Your task to perform on an android device: turn smart compose on in the gmail app Image 0: 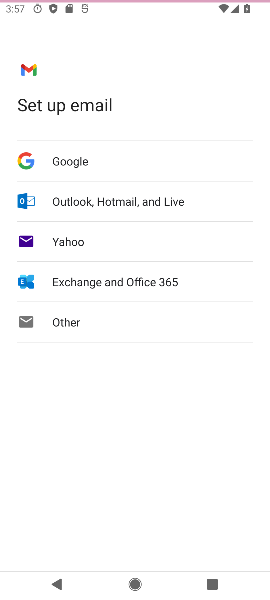
Step 0: click (14, 31)
Your task to perform on an android device: turn smart compose on in the gmail app Image 1: 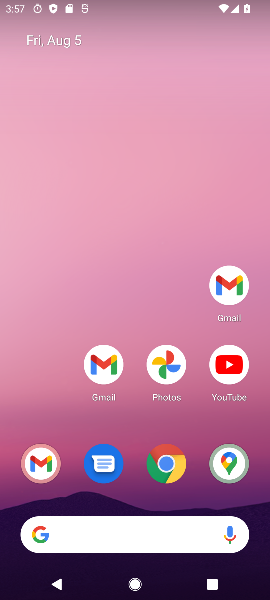
Step 1: drag from (131, 507) to (108, 164)
Your task to perform on an android device: turn smart compose on in the gmail app Image 2: 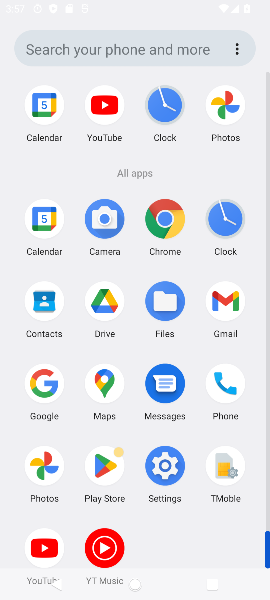
Step 2: drag from (177, 486) to (161, 315)
Your task to perform on an android device: turn smart compose on in the gmail app Image 3: 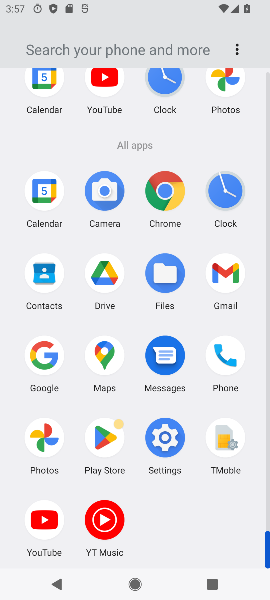
Step 3: click (233, 271)
Your task to perform on an android device: turn smart compose on in the gmail app Image 4: 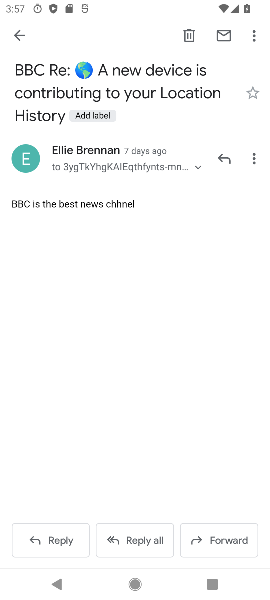
Step 4: click (15, 31)
Your task to perform on an android device: turn smart compose on in the gmail app Image 5: 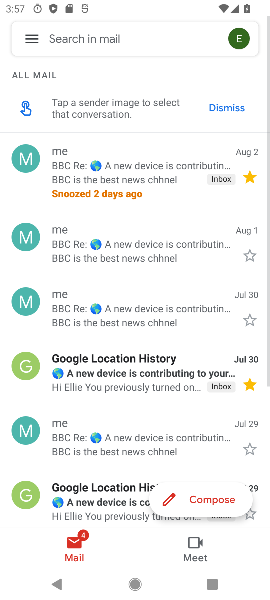
Step 5: drag from (30, 40) to (87, 420)
Your task to perform on an android device: turn smart compose on in the gmail app Image 6: 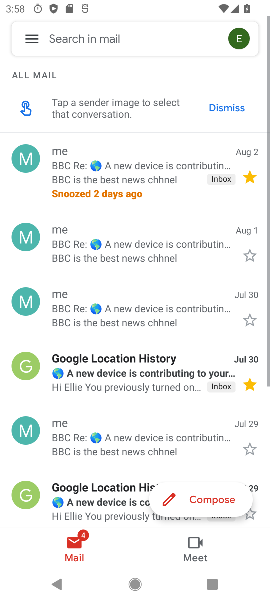
Step 6: drag from (28, 32) to (35, 192)
Your task to perform on an android device: turn smart compose on in the gmail app Image 7: 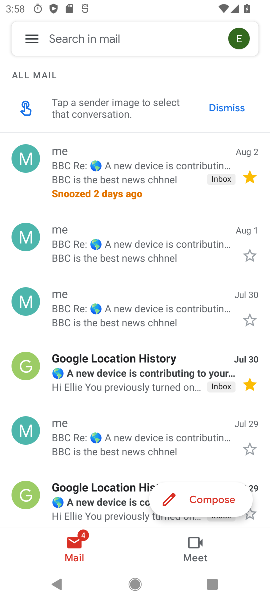
Step 7: drag from (29, 44) to (78, 374)
Your task to perform on an android device: turn smart compose on in the gmail app Image 8: 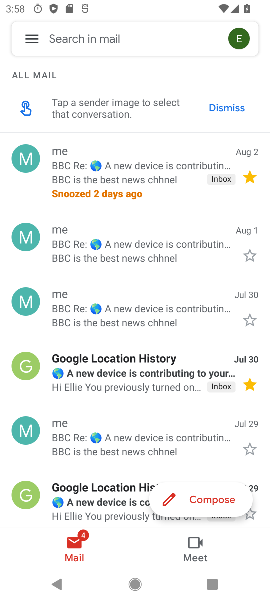
Step 8: drag from (22, 46) to (51, 171)
Your task to perform on an android device: turn smart compose on in the gmail app Image 9: 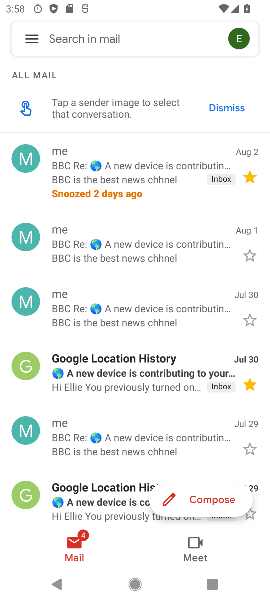
Step 9: drag from (28, 39) to (43, 114)
Your task to perform on an android device: turn smart compose on in the gmail app Image 10: 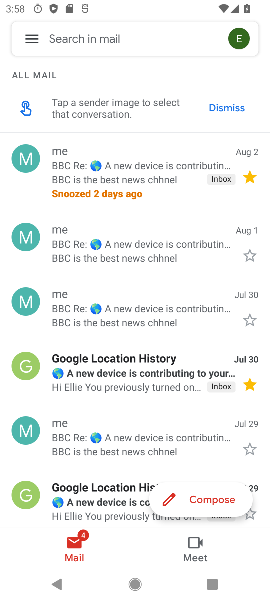
Step 10: click (34, 45)
Your task to perform on an android device: turn smart compose on in the gmail app Image 11: 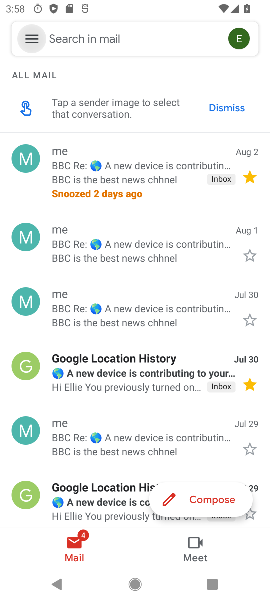
Step 11: drag from (34, 45) to (73, 283)
Your task to perform on an android device: turn smart compose on in the gmail app Image 12: 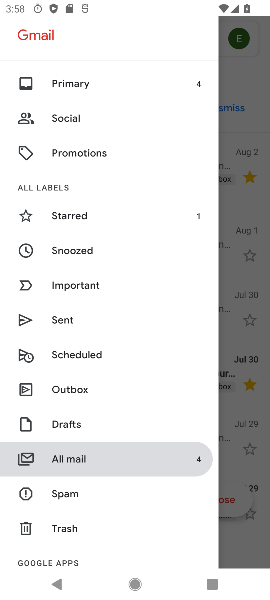
Step 12: drag from (108, 484) to (163, 253)
Your task to perform on an android device: turn smart compose on in the gmail app Image 13: 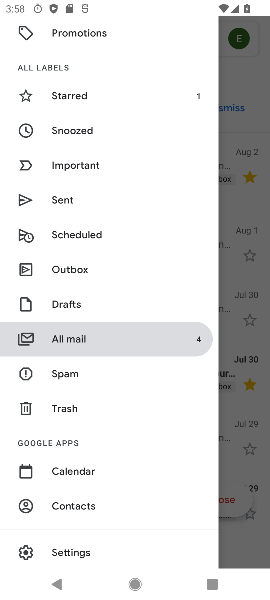
Step 13: drag from (164, 386) to (160, 201)
Your task to perform on an android device: turn smart compose on in the gmail app Image 14: 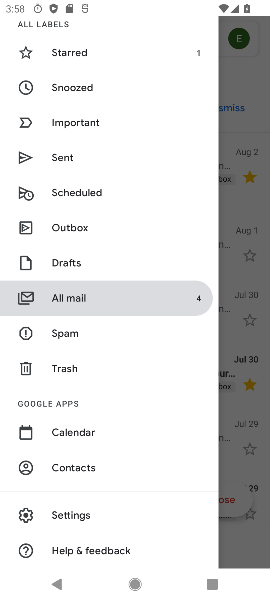
Step 14: click (106, 190)
Your task to perform on an android device: turn smart compose on in the gmail app Image 15: 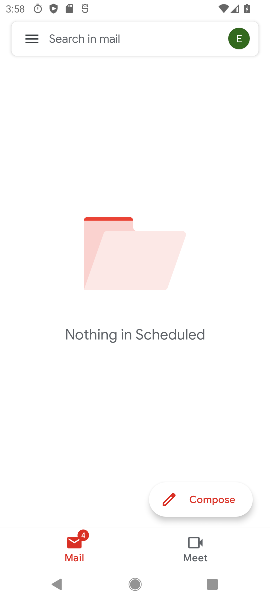
Step 15: click (30, 39)
Your task to perform on an android device: turn smart compose on in the gmail app Image 16: 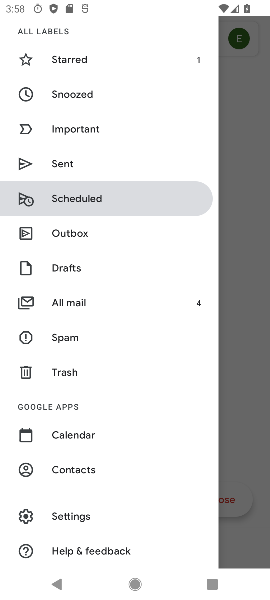
Step 16: drag from (83, 478) to (120, 143)
Your task to perform on an android device: turn smart compose on in the gmail app Image 17: 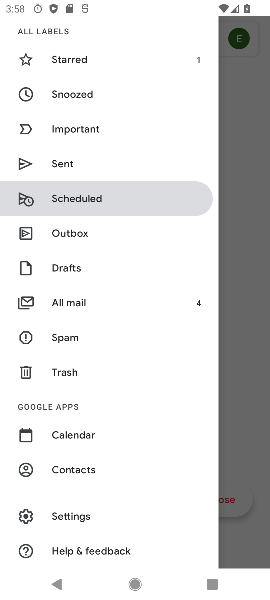
Step 17: click (83, 510)
Your task to perform on an android device: turn smart compose on in the gmail app Image 18: 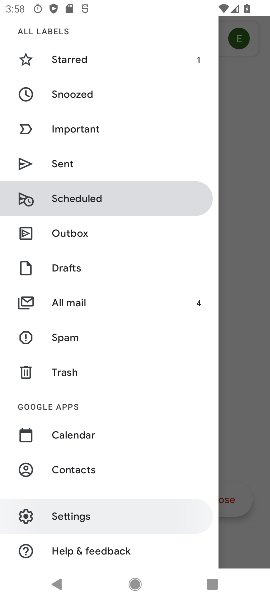
Step 18: click (82, 511)
Your task to perform on an android device: turn smart compose on in the gmail app Image 19: 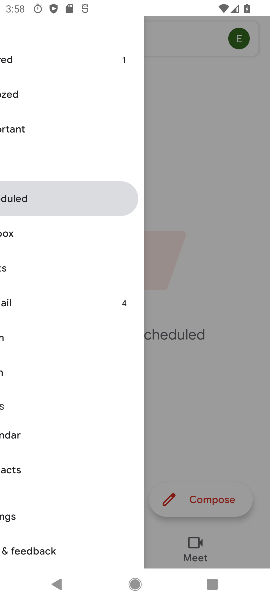
Step 19: click (77, 511)
Your task to perform on an android device: turn smart compose on in the gmail app Image 20: 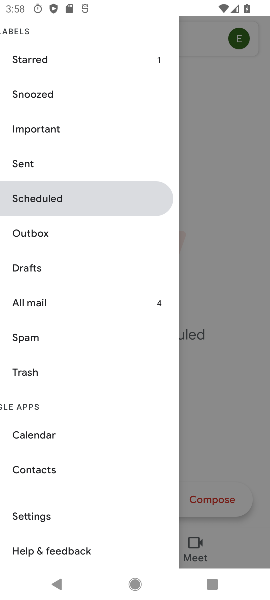
Step 20: click (77, 511)
Your task to perform on an android device: turn smart compose on in the gmail app Image 21: 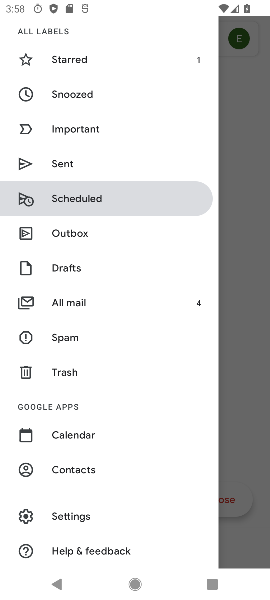
Step 21: click (61, 518)
Your task to perform on an android device: turn smart compose on in the gmail app Image 22: 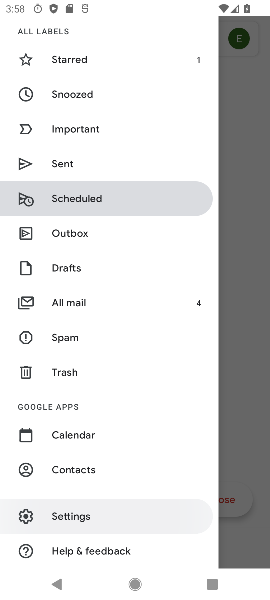
Step 22: click (64, 515)
Your task to perform on an android device: turn smart compose on in the gmail app Image 23: 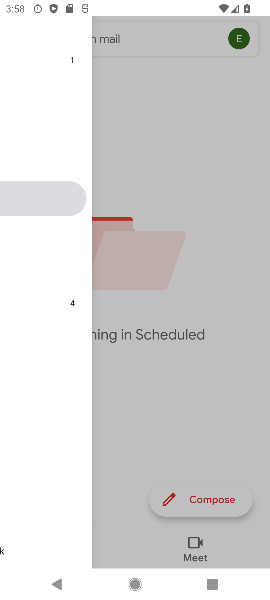
Step 23: click (66, 514)
Your task to perform on an android device: turn smart compose on in the gmail app Image 24: 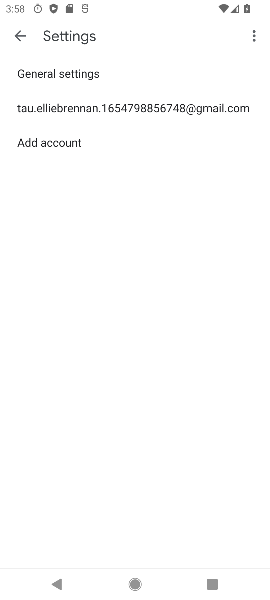
Step 24: click (95, 105)
Your task to perform on an android device: turn smart compose on in the gmail app Image 25: 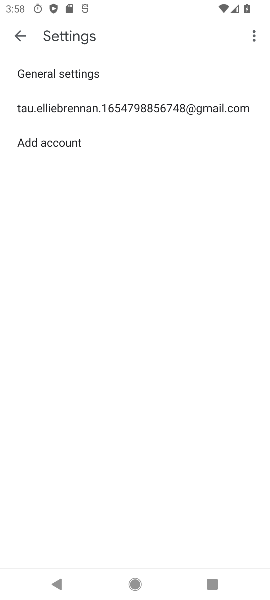
Step 25: click (96, 105)
Your task to perform on an android device: turn smart compose on in the gmail app Image 26: 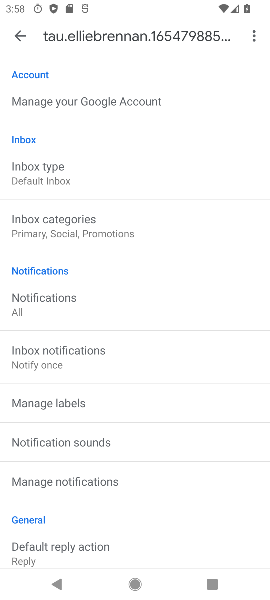
Step 26: task complete